Your task to perform on an android device: turn on the 24-hour format for clock Image 0: 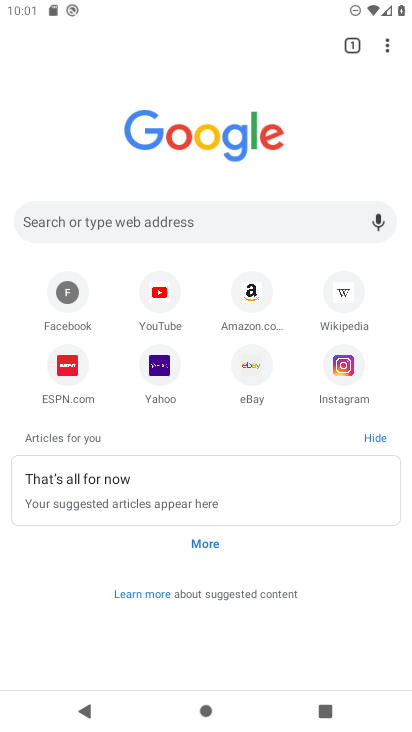
Step 0: press back button
Your task to perform on an android device: turn on the 24-hour format for clock Image 1: 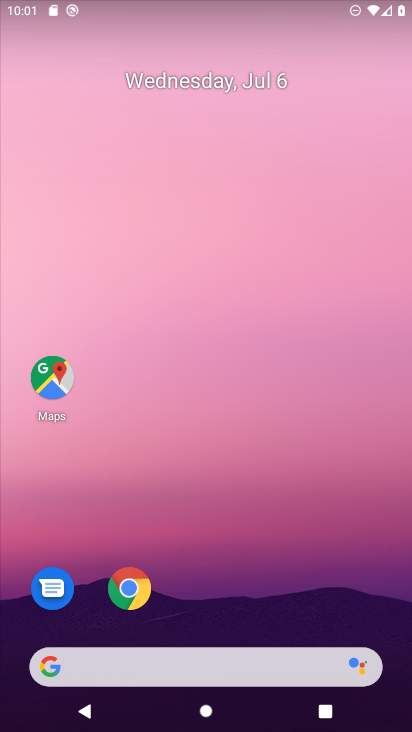
Step 1: drag from (195, 606) to (231, 113)
Your task to perform on an android device: turn on the 24-hour format for clock Image 2: 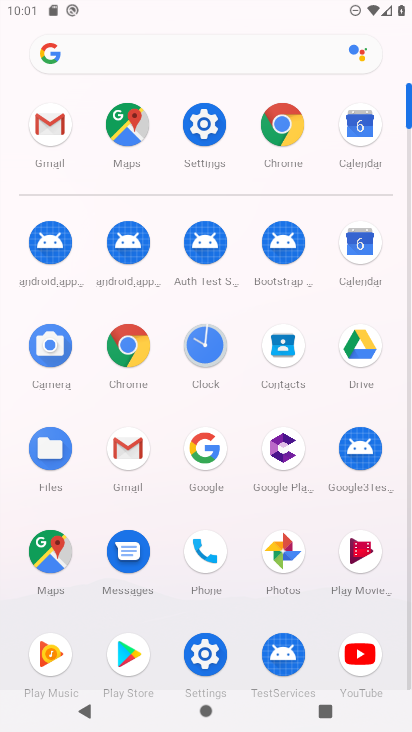
Step 2: click (221, 340)
Your task to perform on an android device: turn on the 24-hour format for clock Image 3: 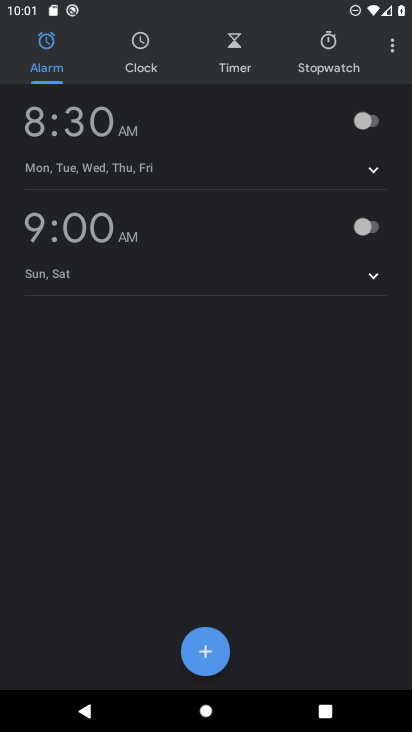
Step 3: click (391, 49)
Your task to perform on an android device: turn on the 24-hour format for clock Image 4: 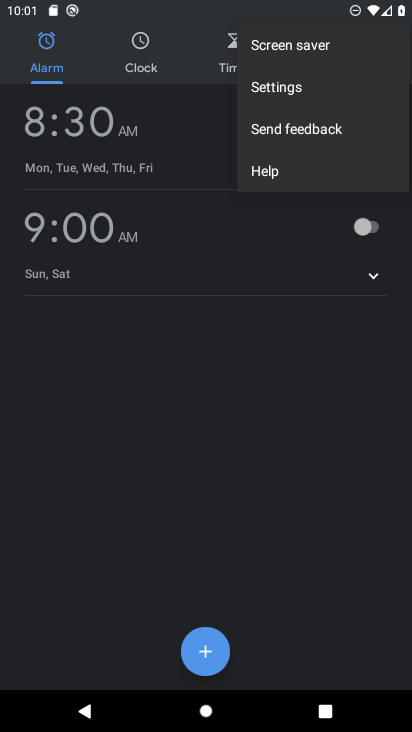
Step 4: click (281, 86)
Your task to perform on an android device: turn on the 24-hour format for clock Image 5: 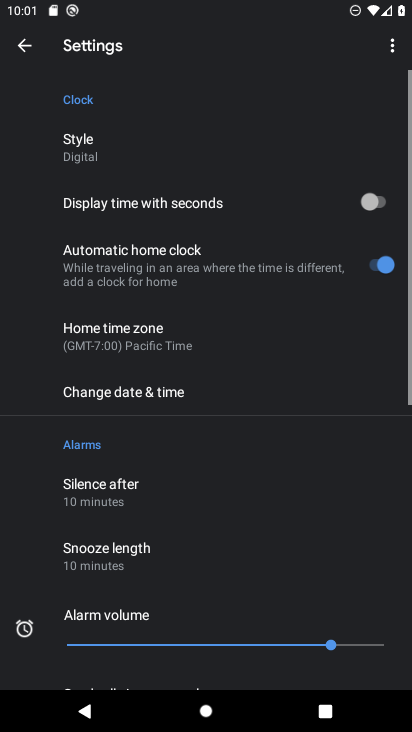
Step 5: drag from (184, 577) to (259, 2)
Your task to perform on an android device: turn on the 24-hour format for clock Image 6: 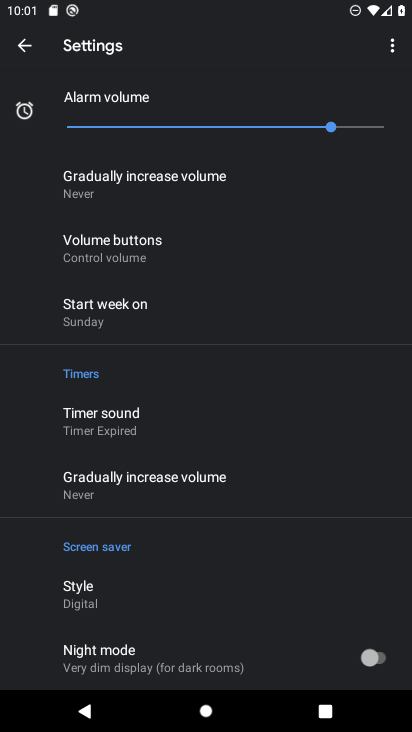
Step 6: drag from (175, 584) to (241, 24)
Your task to perform on an android device: turn on the 24-hour format for clock Image 7: 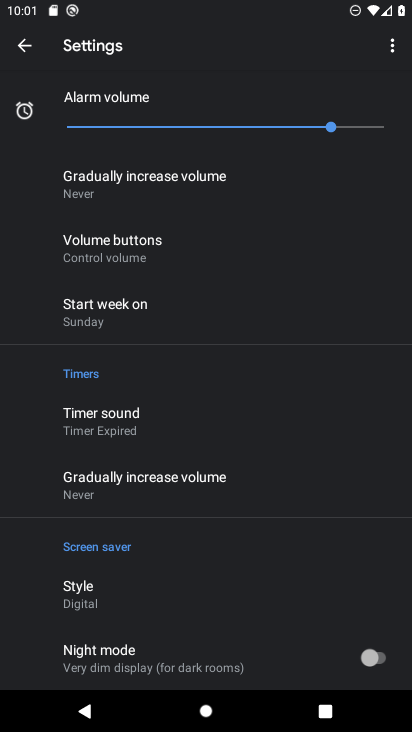
Step 7: drag from (189, 458) to (233, 191)
Your task to perform on an android device: turn on the 24-hour format for clock Image 8: 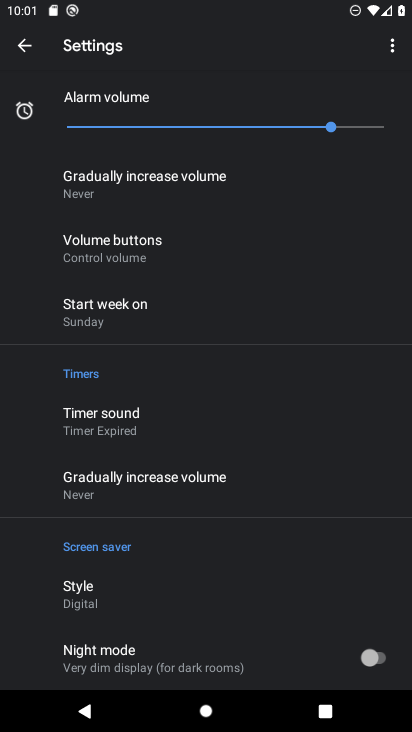
Step 8: drag from (194, 192) to (161, 654)
Your task to perform on an android device: turn on the 24-hour format for clock Image 9: 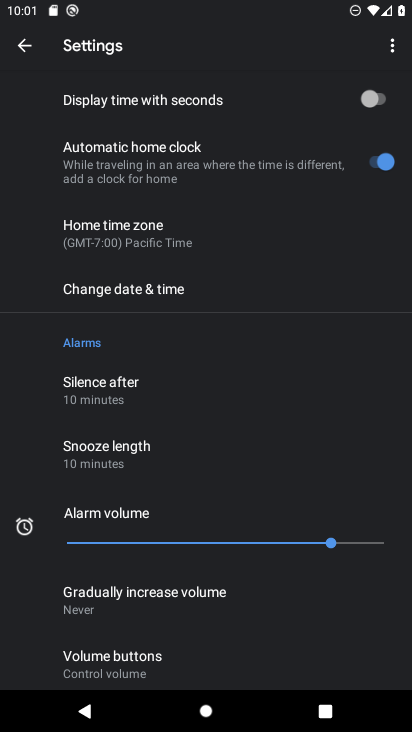
Step 9: click (107, 292)
Your task to perform on an android device: turn on the 24-hour format for clock Image 10: 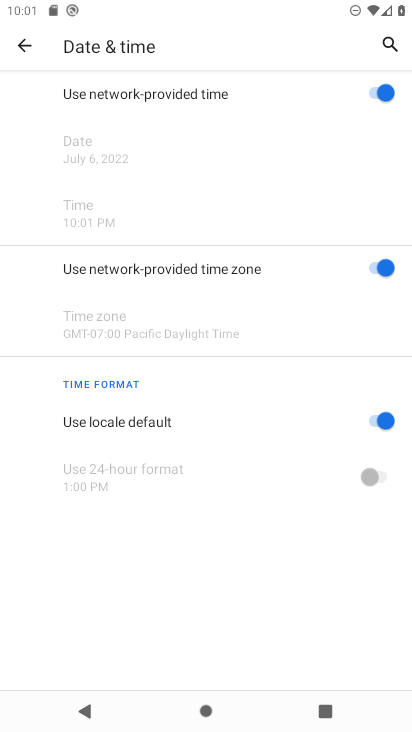
Step 10: click (374, 479)
Your task to perform on an android device: turn on the 24-hour format for clock Image 11: 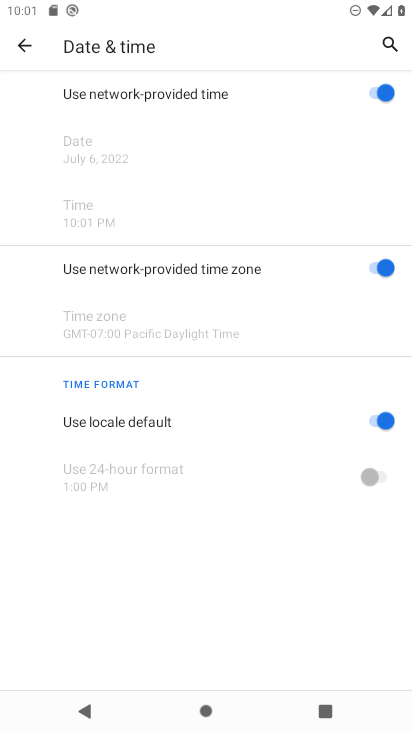
Step 11: click (372, 474)
Your task to perform on an android device: turn on the 24-hour format for clock Image 12: 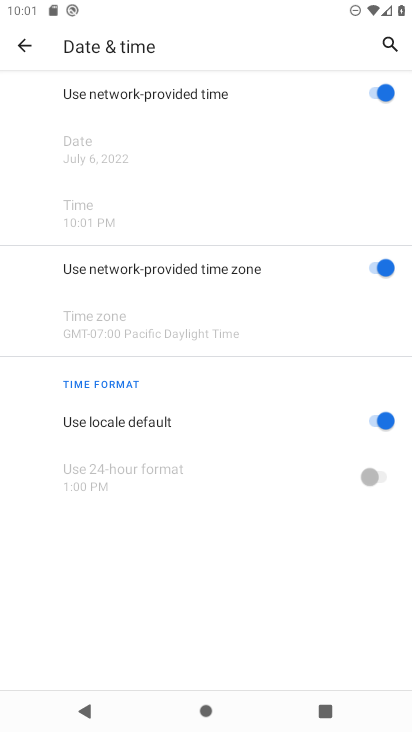
Step 12: click (382, 423)
Your task to perform on an android device: turn on the 24-hour format for clock Image 13: 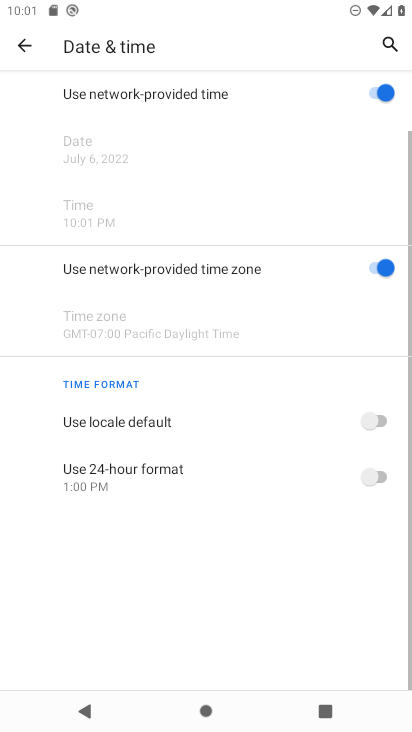
Step 13: click (371, 479)
Your task to perform on an android device: turn on the 24-hour format for clock Image 14: 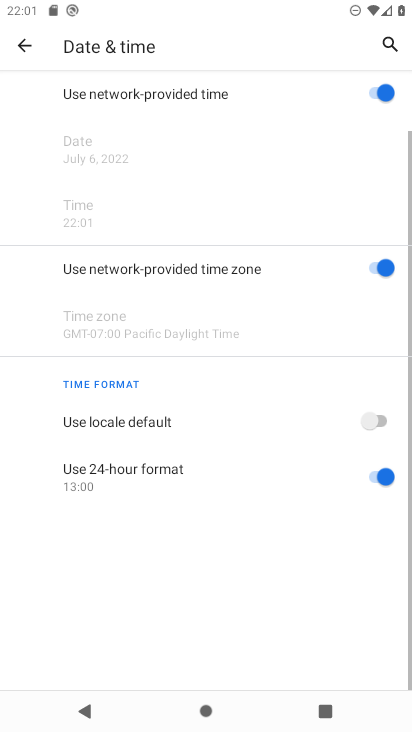
Step 14: task complete